Your task to perform on an android device: open sync settings in chrome Image 0: 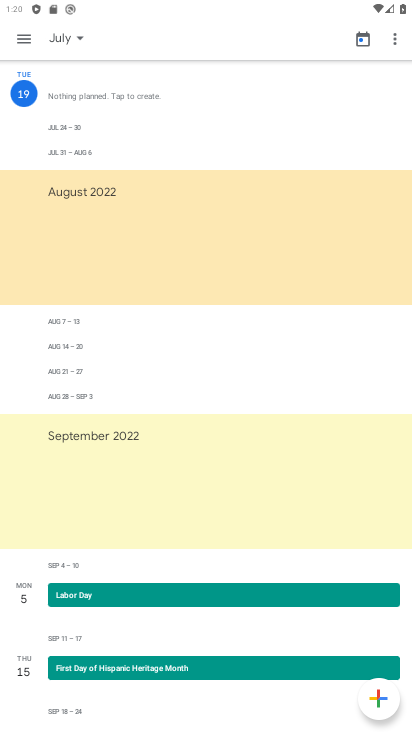
Step 0: press home button
Your task to perform on an android device: open sync settings in chrome Image 1: 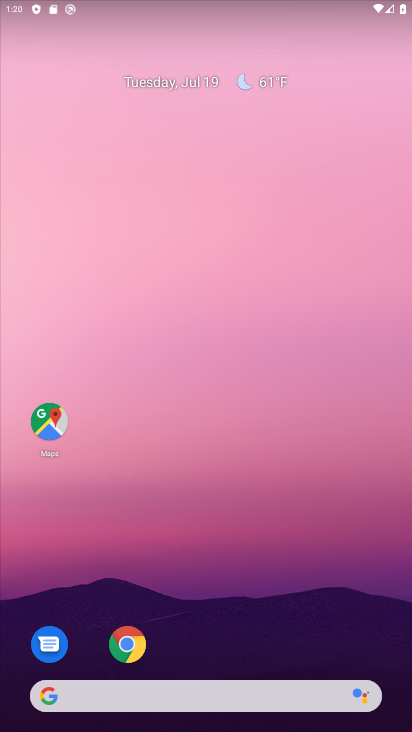
Step 1: click (121, 646)
Your task to perform on an android device: open sync settings in chrome Image 2: 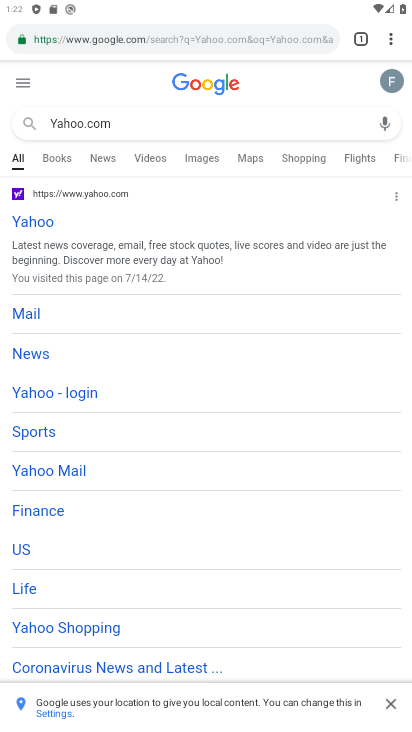
Step 2: click (390, 46)
Your task to perform on an android device: open sync settings in chrome Image 3: 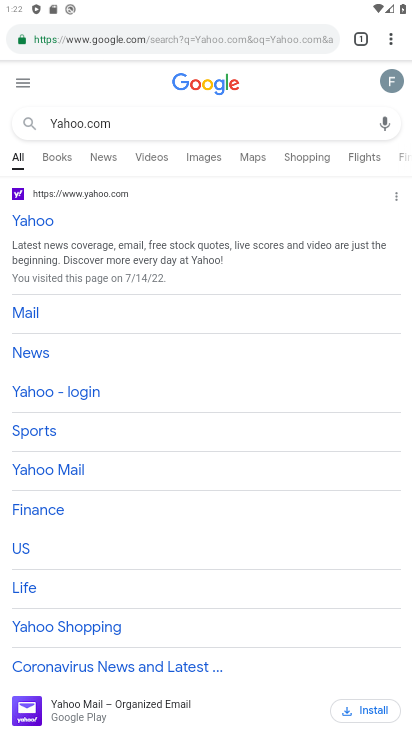
Step 3: click (386, 35)
Your task to perform on an android device: open sync settings in chrome Image 4: 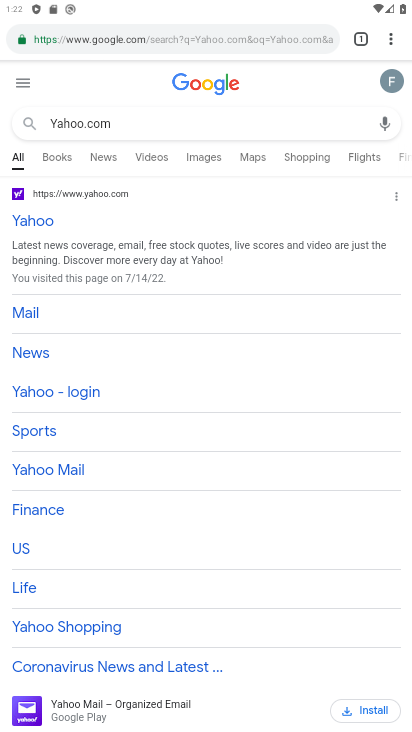
Step 4: click (386, 35)
Your task to perform on an android device: open sync settings in chrome Image 5: 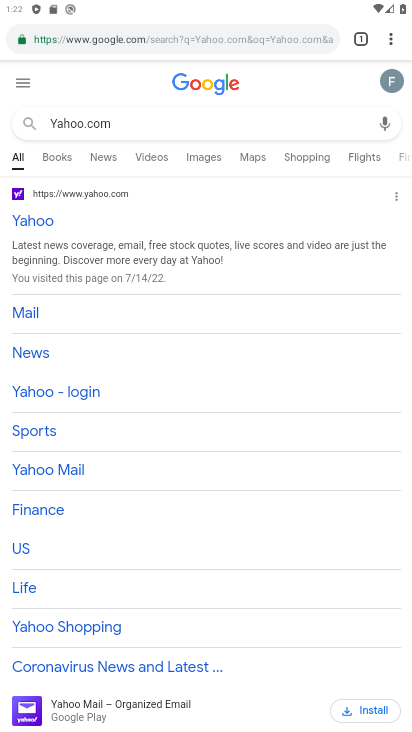
Step 5: click (390, 37)
Your task to perform on an android device: open sync settings in chrome Image 6: 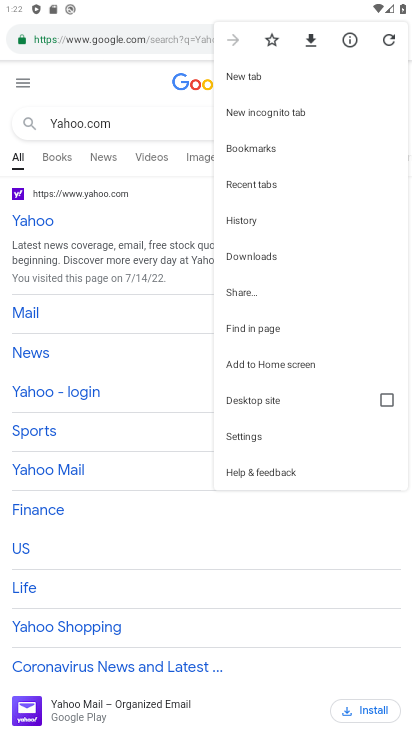
Step 6: click (248, 437)
Your task to perform on an android device: open sync settings in chrome Image 7: 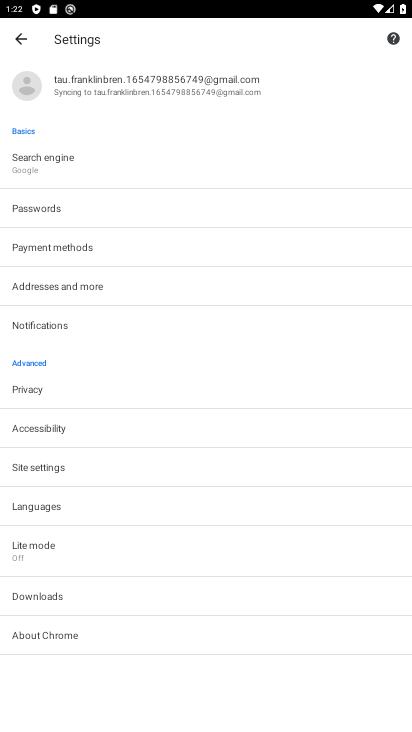
Step 7: click (44, 463)
Your task to perform on an android device: open sync settings in chrome Image 8: 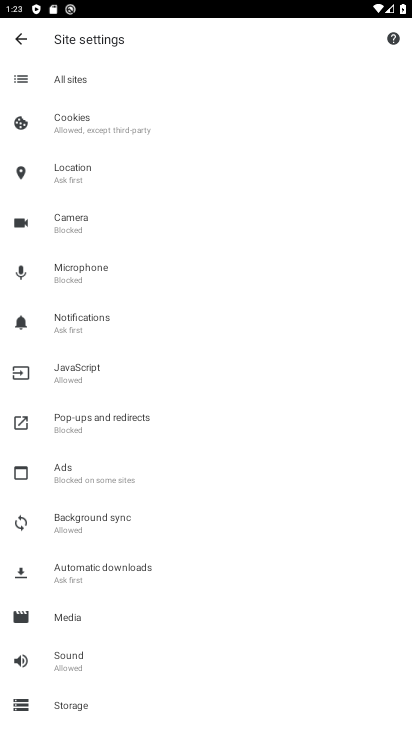
Step 8: click (88, 519)
Your task to perform on an android device: open sync settings in chrome Image 9: 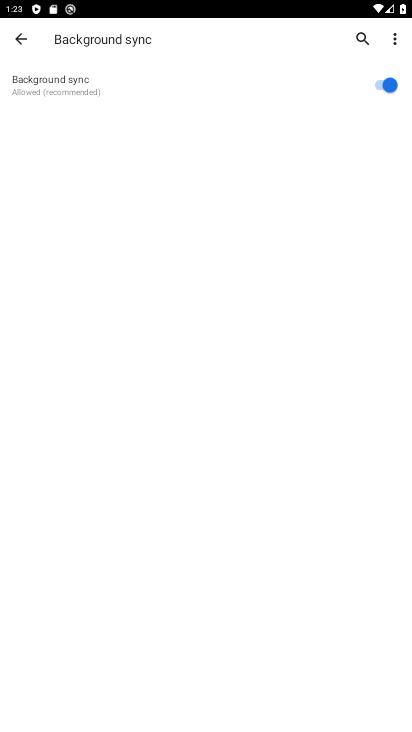
Step 9: task complete